Your task to perform on an android device: Open Maps and search for coffee Image 0: 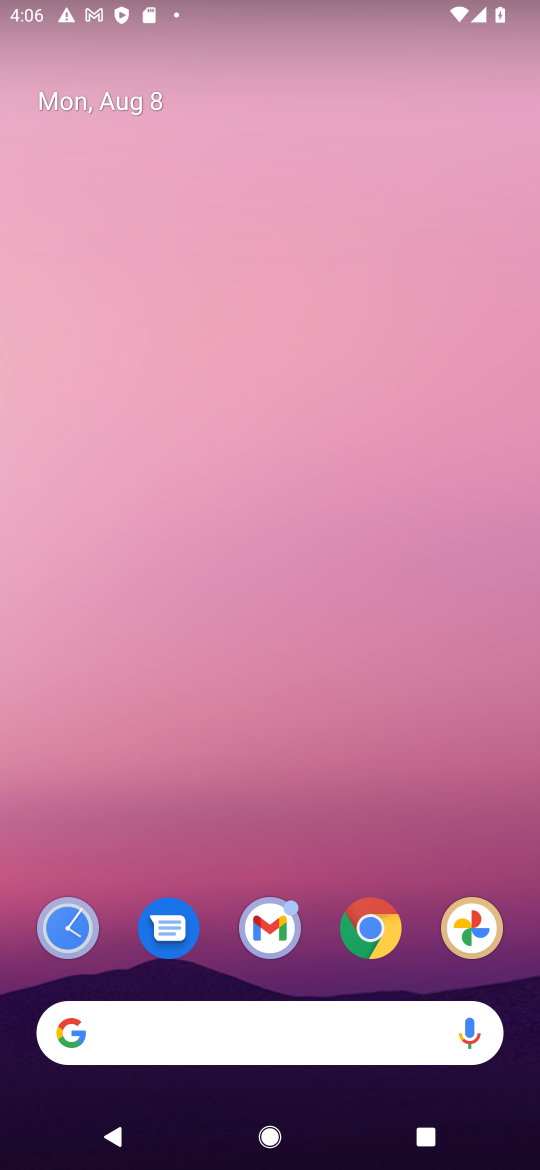
Step 0: press home button
Your task to perform on an android device: Open Maps and search for coffee Image 1: 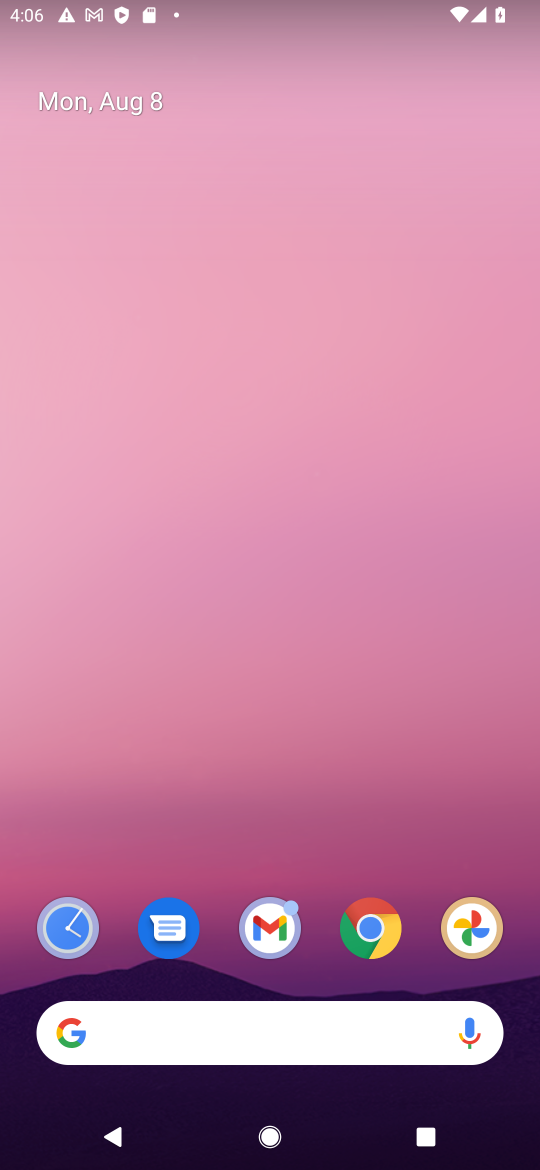
Step 1: drag from (414, 855) to (389, 3)
Your task to perform on an android device: Open Maps and search for coffee Image 2: 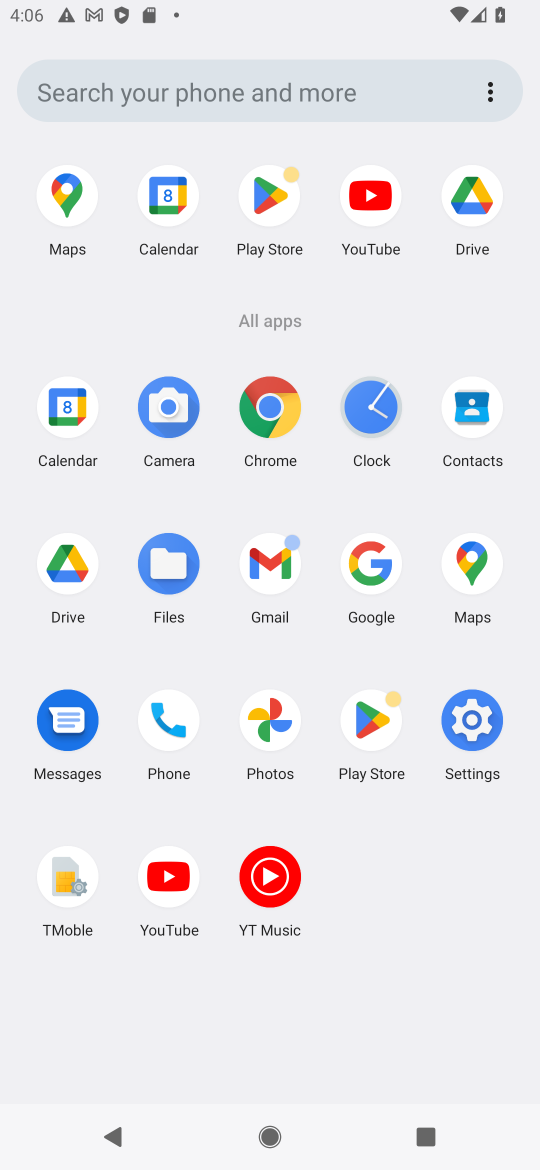
Step 2: click (56, 197)
Your task to perform on an android device: Open Maps and search for coffee Image 3: 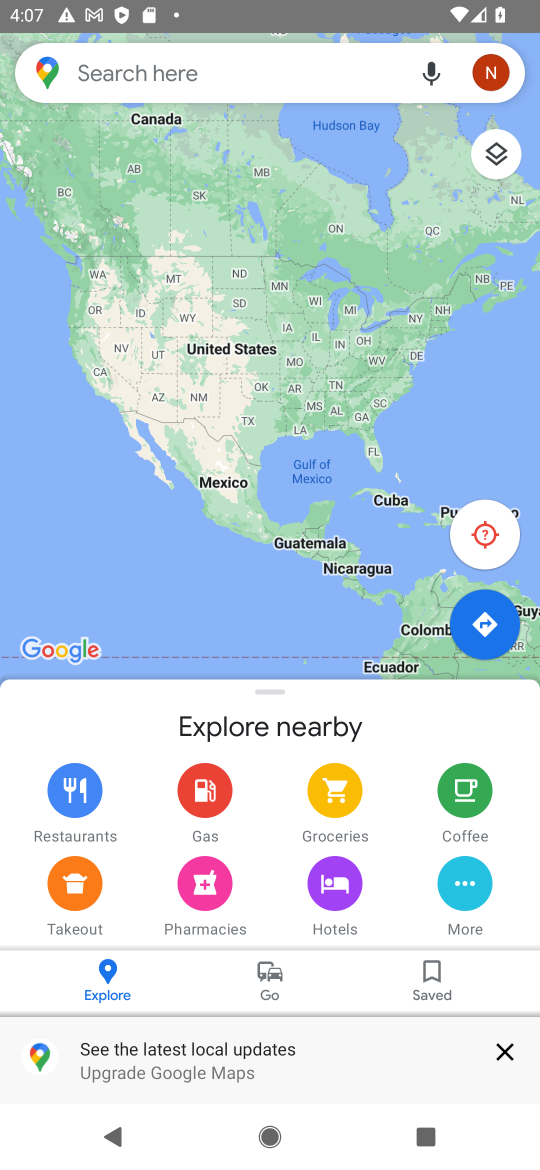
Step 3: click (142, 75)
Your task to perform on an android device: Open Maps and search for coffee Image 4: 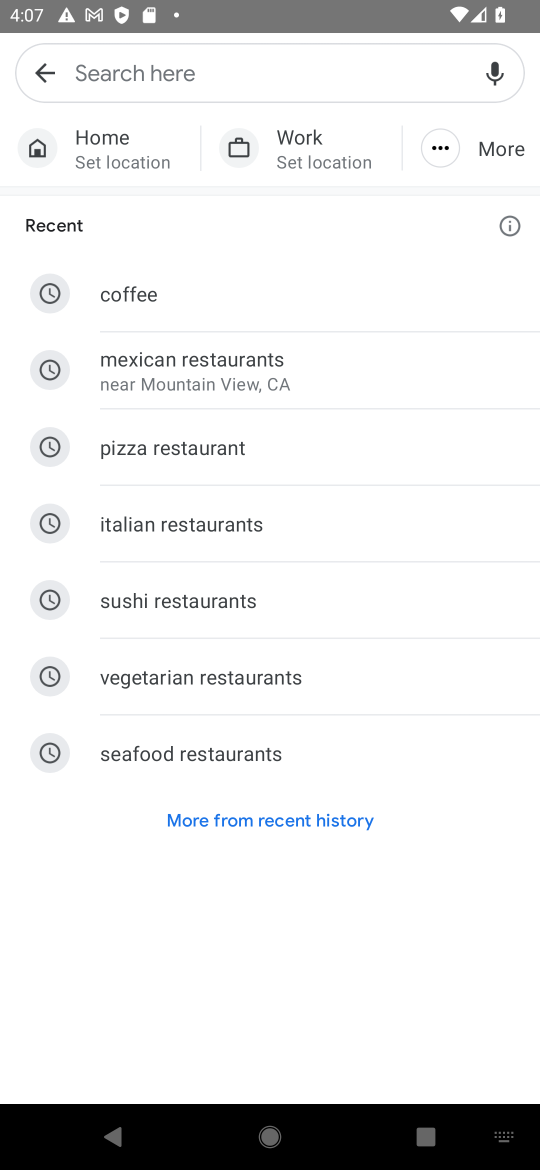
Step 4: click (160, 294)
Your task to perform on an android device: Open Maps and search for coffee Image 5: 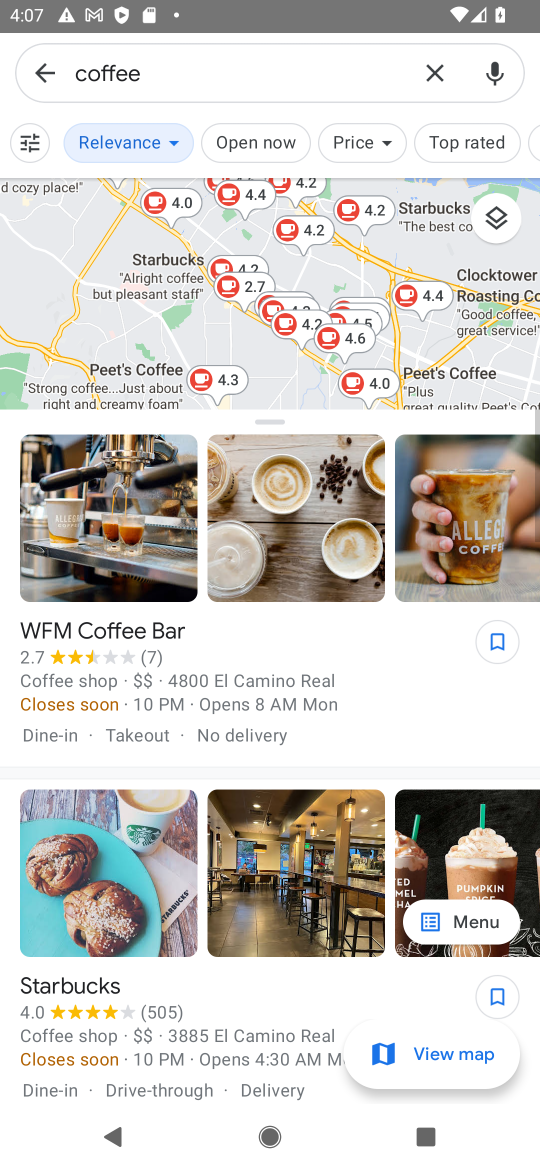
Step 5: task complete